Your task to perform on an android device: Search for rayovac triple a on ebay, select the first entry, add it to the cart, then select checkout. Image 0: 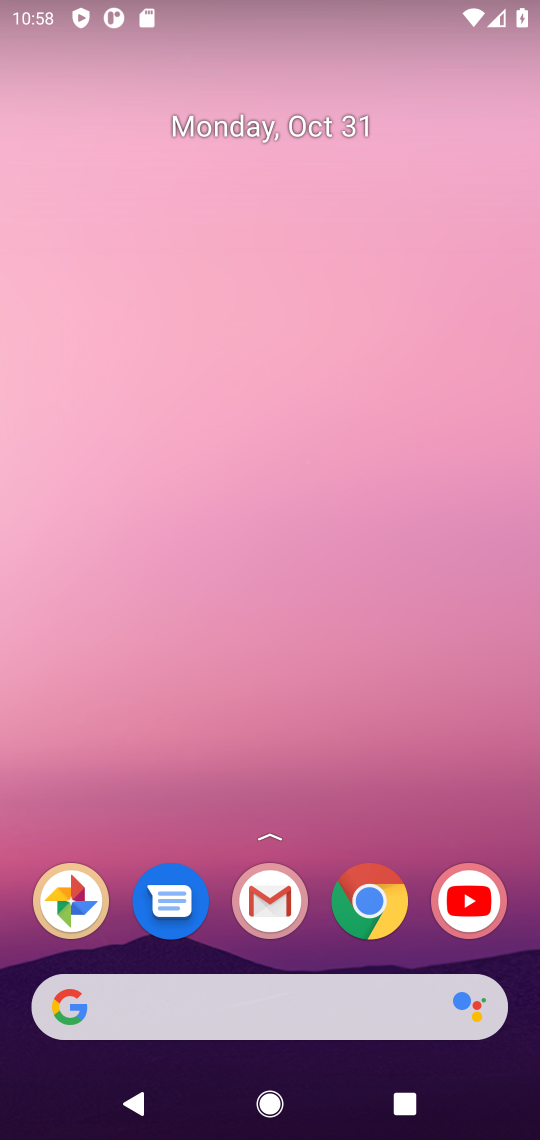
Step 0: drag from (260, 764) to (256, 193)
Your task to perform on an android device: Search for rayovac triple a on ebay, select the first entry, add it to the cart, then select checkout. Image 1: 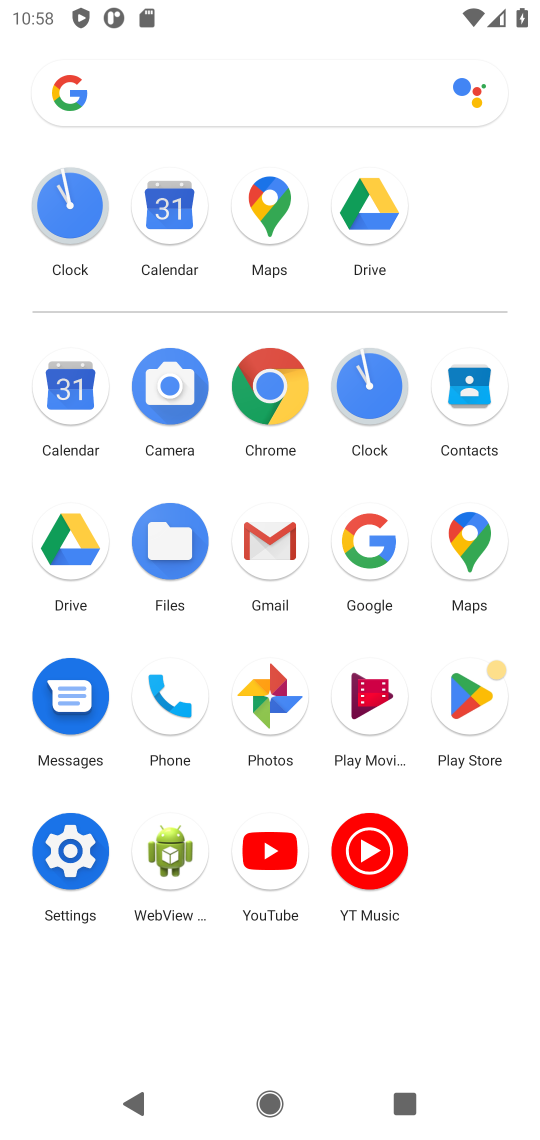
Step 1: click (376, 541)
Your task to perform on an android device: Search for rayovac triple a on ebay, select the first entry, add it to the cart, then select checkout. Image 2: 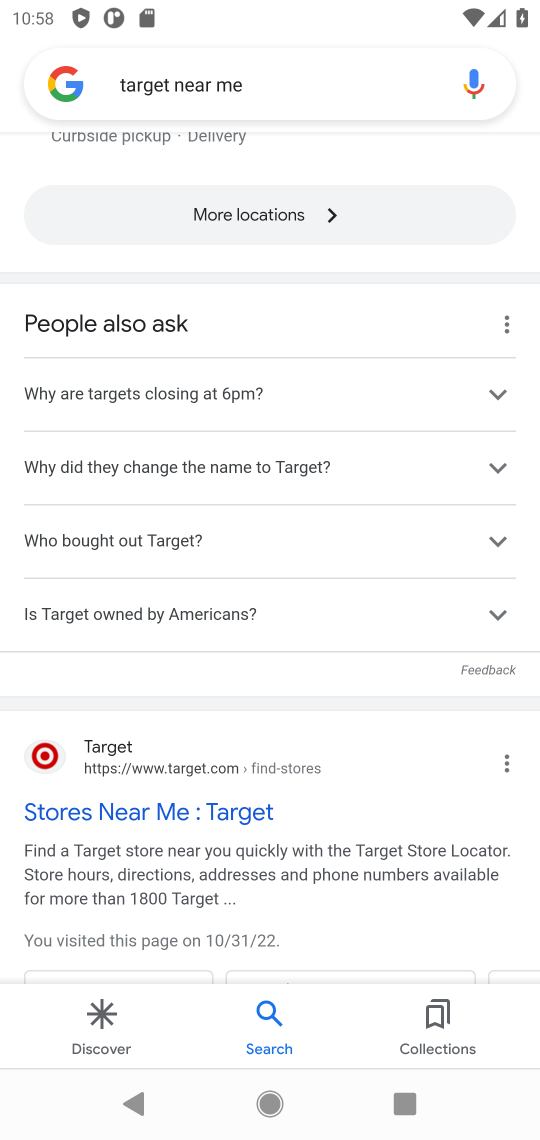
Step 2: click (233, 65)
Your task to perform on an android device: Search for rayovac triple a on ebay, select the first entry, add it to the cart, then select checkout. Image 3: 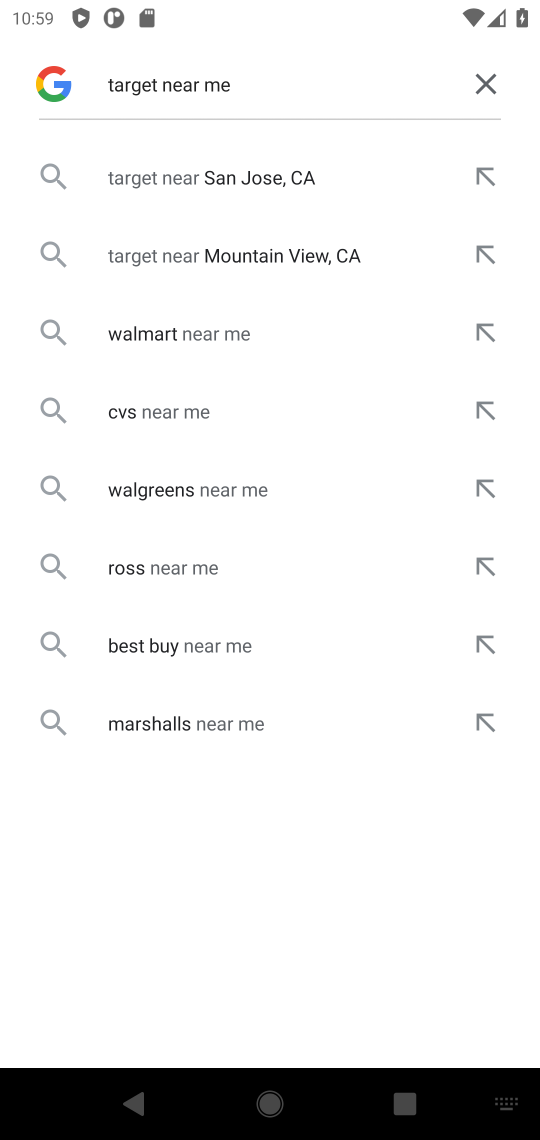
Step 3: click (497, 72)
Your task to perform on an android device: Search for rayovac triple a on ebay, select the first entry, add it to the cart, then select checkout. Image 4: 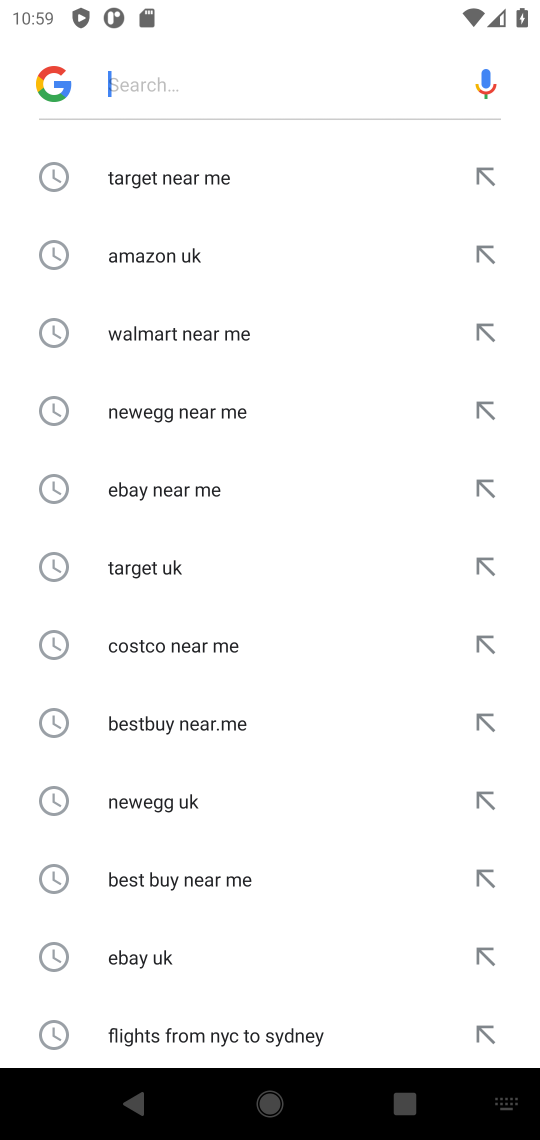
Step 4: click (234, 83)
Your task to perform on an android device: Search for rayovac triple a on ebay, select the first entry, add it to the cart, then select checkout. Image 5: 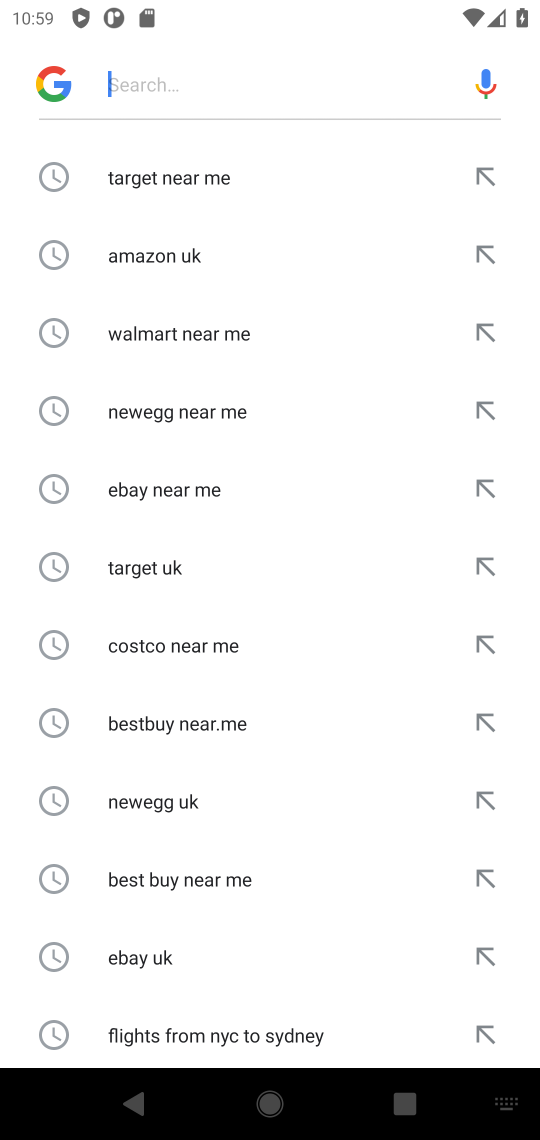
Step 5: type "ebay "
Your task to perform on an android device: Search for rayovac triple a on ebay, select the first entry, add it to the cart, then select checkout. Image 6: 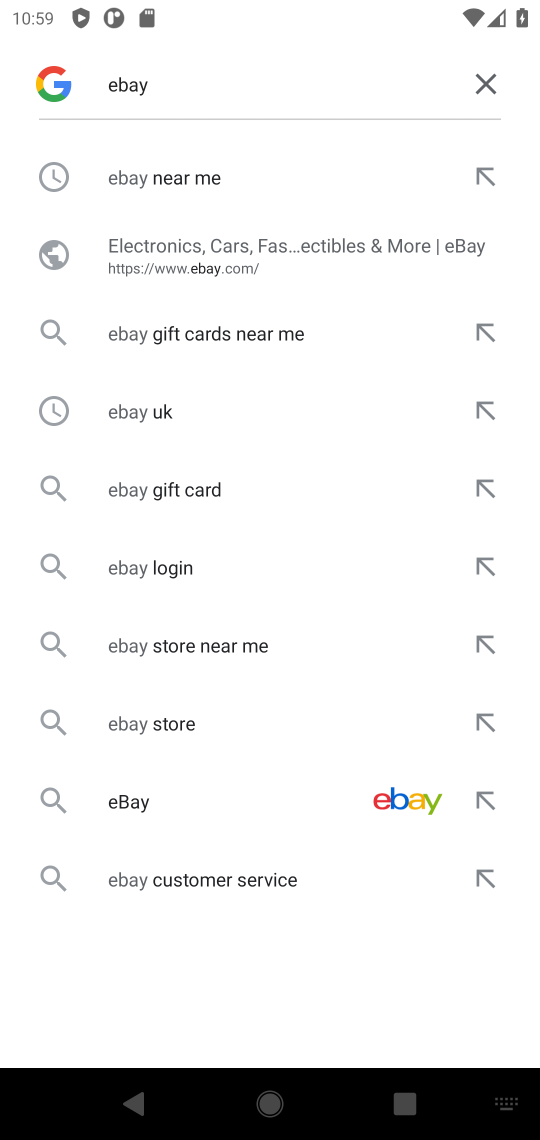
Step 6: click (209, 195)
Your task to perform on an android device: Search for rayovac triple a on ebay, select the first entry, add it to the cart, then select checkout. Image 7: 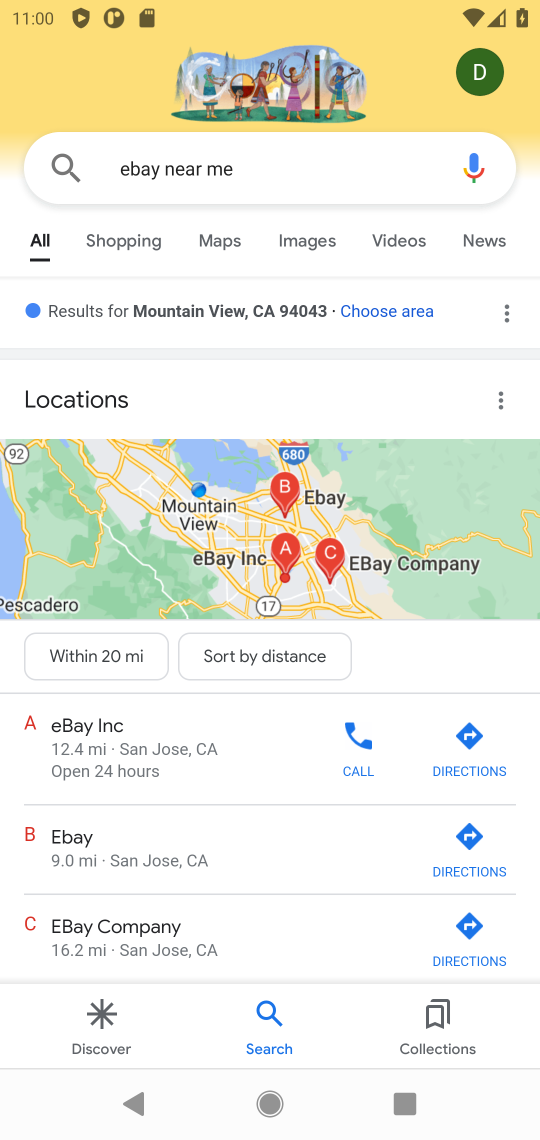
Step 7: drag from (187, 777) to (234, 245)
Your task to perform on an android device: Search for rayovac triple a on ebay, select the first entry, add it to the cart, then select checkout. Image 8: 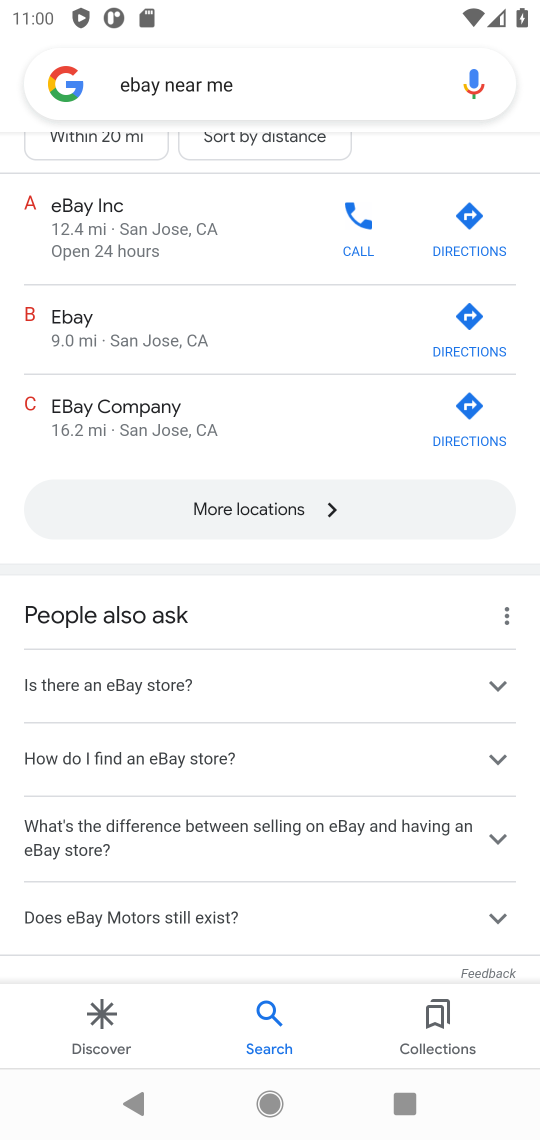
Step 8: drag from (234, 359) to (251, 134)
Your task to perform on an android device: Search for rayovac triple a on ebay, select the first entry, add it to the cart, then select checkout. Image 9: 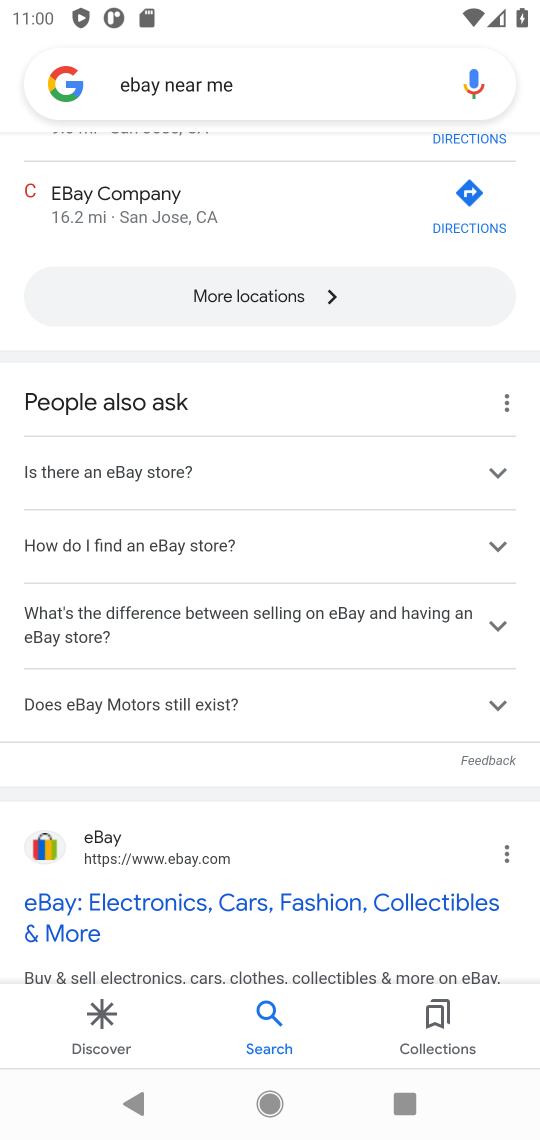
Step 9: drag from (234, 613) to (241, 364)
Your task to perform on an android device: Search for rayovac triple a on ebay, select the first entry, add it to the cart, then select checkout. Image 10: 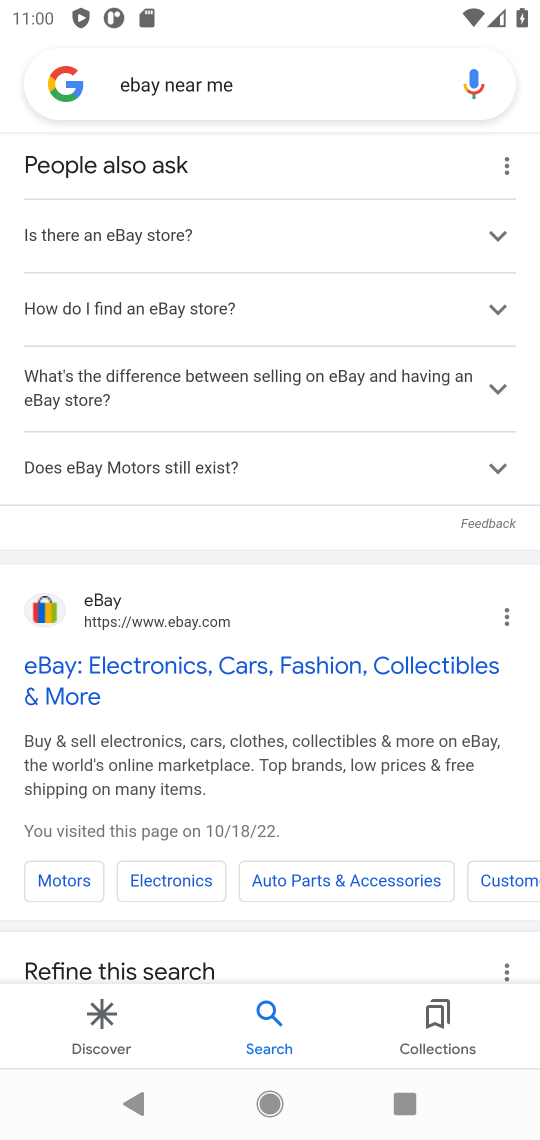
Step 10: drag from (269, 915) to (286, 320)
Your task to perform on an android device: Search for rayovac triple a on ebay, select the first entry, add it to the cart, then select checkout. Image 11: 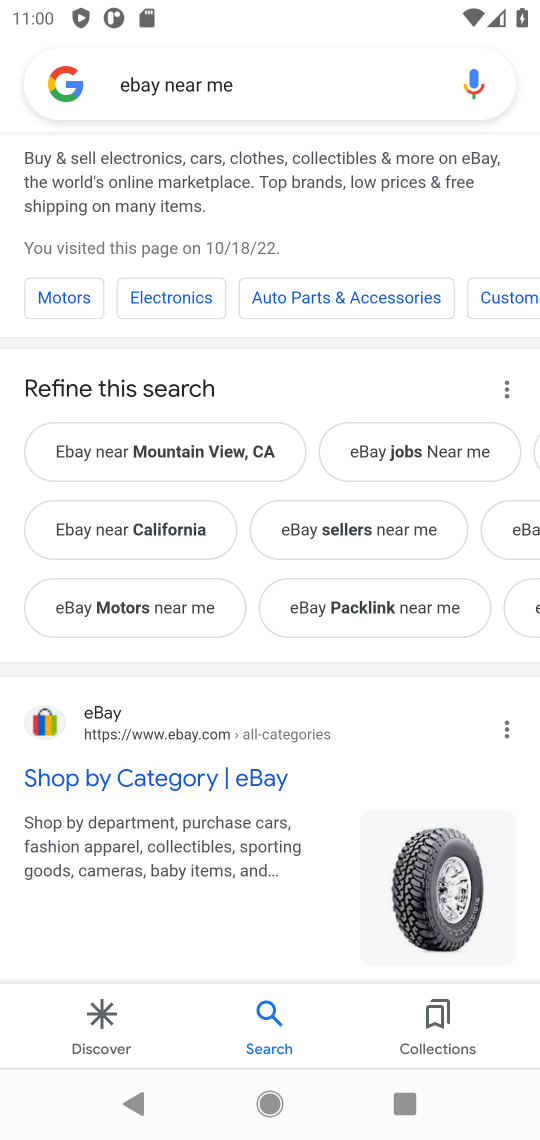
Step 11: click (49, 725)
Your task to perform on an android device: Search for rayovac triple a on ebay, select the first entry, add it to the cart, then select checkout. Image 12: 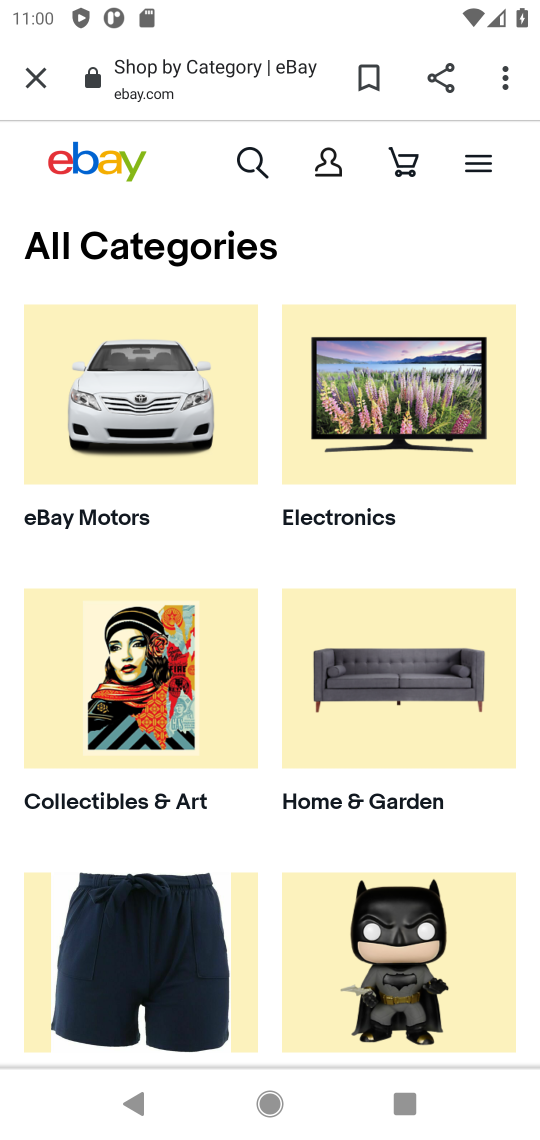
Step 12: click (248, 159)
Your task to perform on an android device: Search for rayovac triple a on ebay, select the first entry, add it to the cart, then select checkout. Image 13: 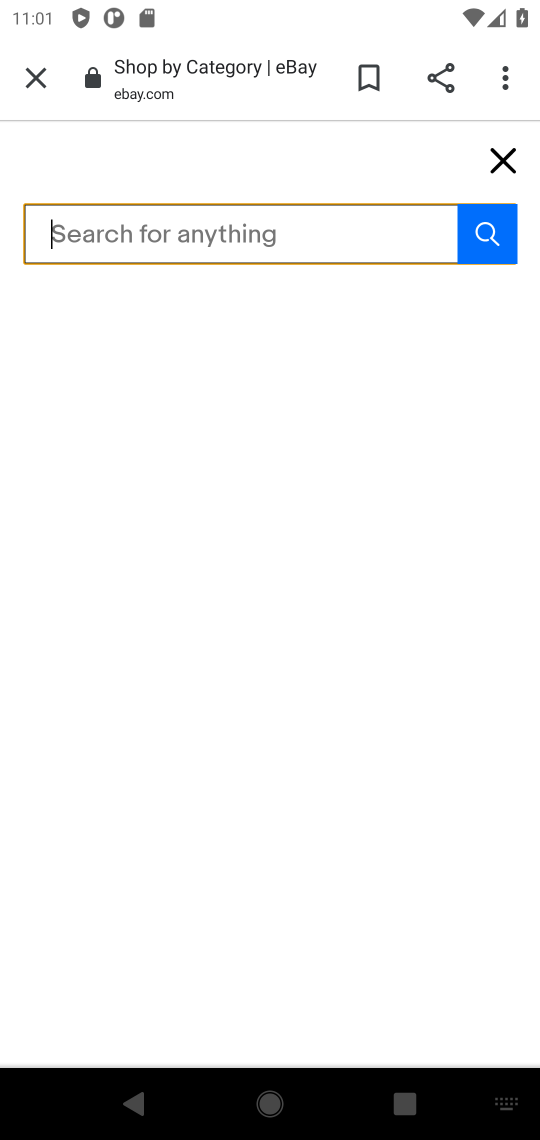
Step 13: click (266, 210)
Your task to perform on an android device: Search for rayovac triple a on ebay, select the first entry, add it to the cart, then select checkout. Image 14: 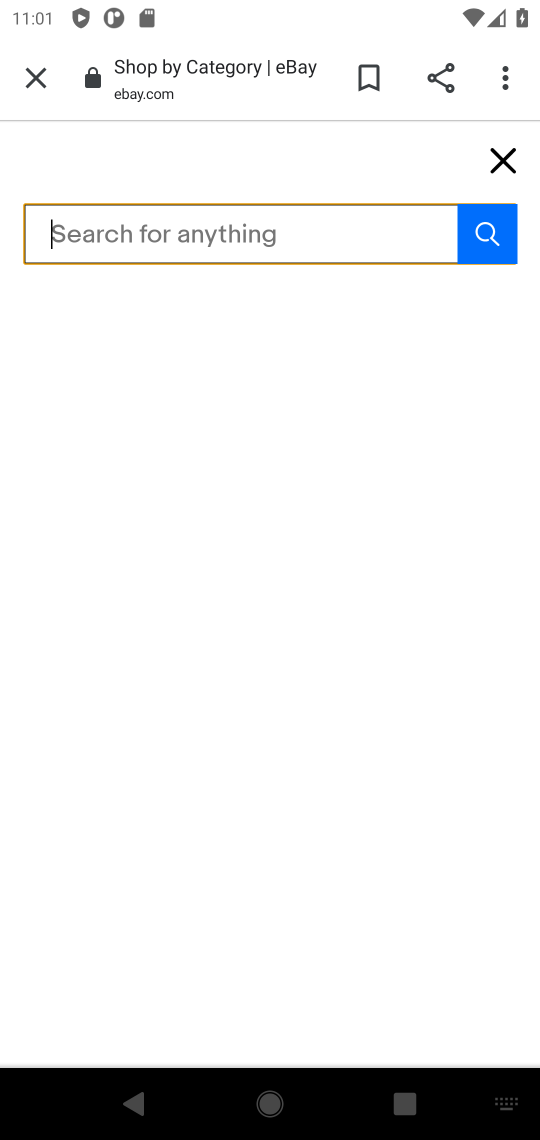
Step 14: type " rayovac tripl "
Your task to perform on an android device: Search for rayovac triple a on ebay, select the first entry, add it to the cart, then select checkout. Image 15: 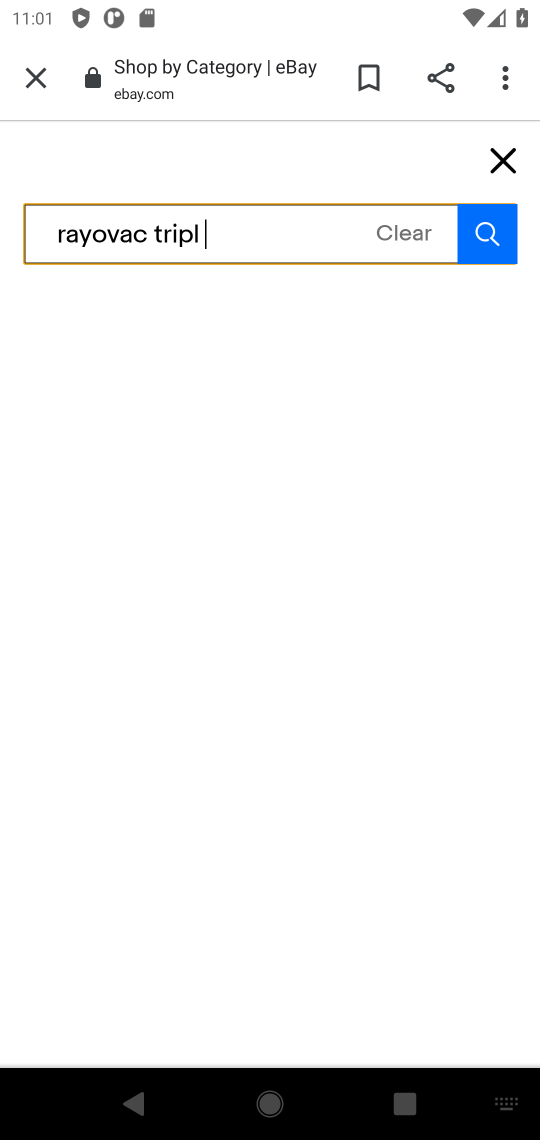
Step 15: click (490, 236)
Your task to perform on an android device: Search for rayovac triple a on ebay, select the first entry, add it to the cart, then select checkout. Image 16: 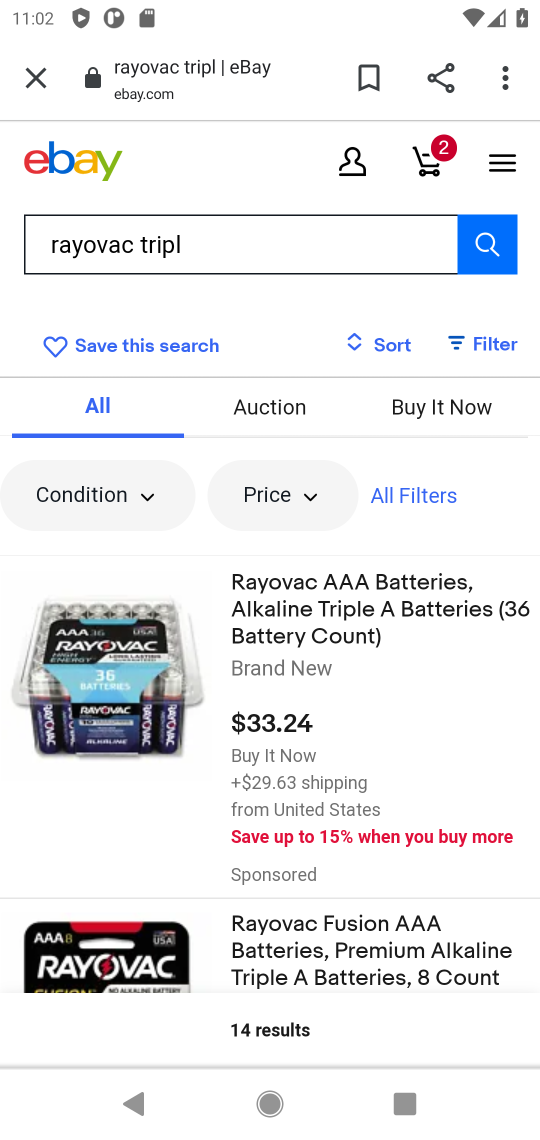
Step 16: click (261, 580)
Your task to perform on an android device: Search for rayovac triple a on ebay, select the first entry, add it to the cart, then select checkout. Image 17: 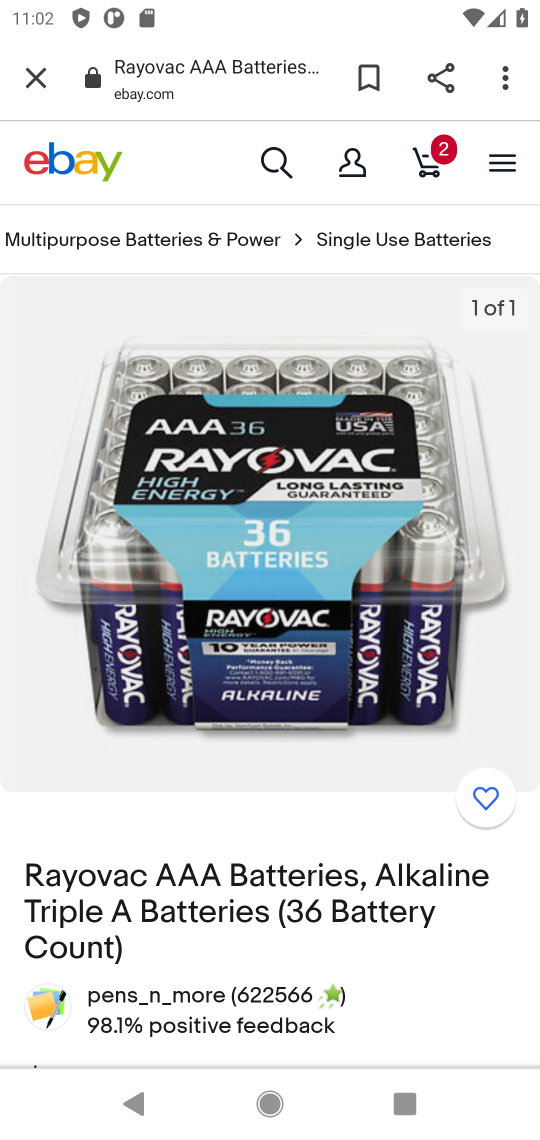
Step 17: drag from (297, 941) to (314, 310)
Your task to perform on an android device: Search for rayovac triple a on ebay, select the first entry, add it to the cart, then select checkout. Image 18: 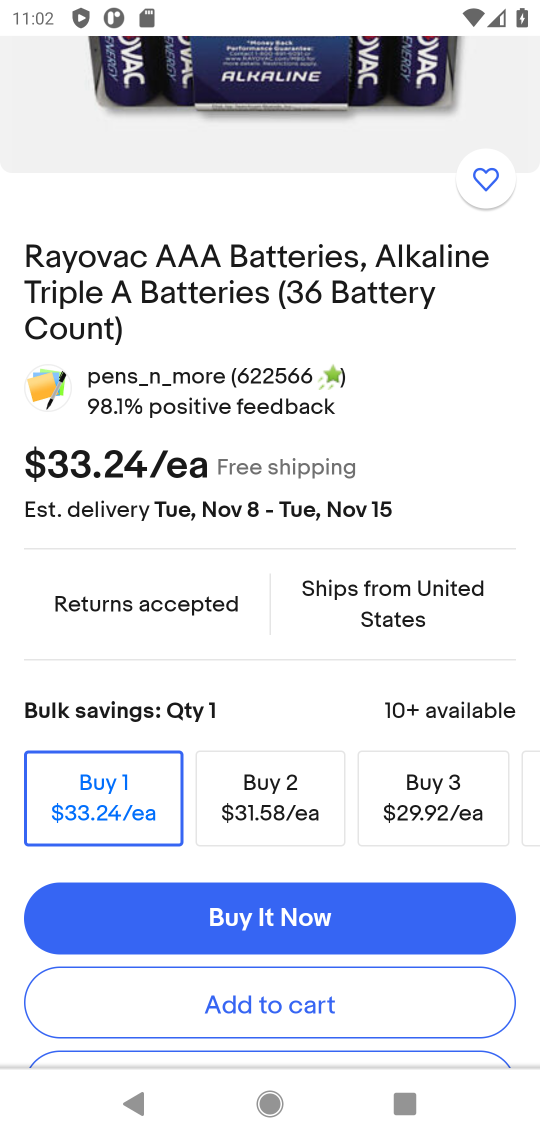
Step 18: drag from (212, 749) to (240, 276)
Your task to perform on an android device: Search for rayovac triple a on ebay, select the first entry, add it to the cart, then select checkout. Image 19: 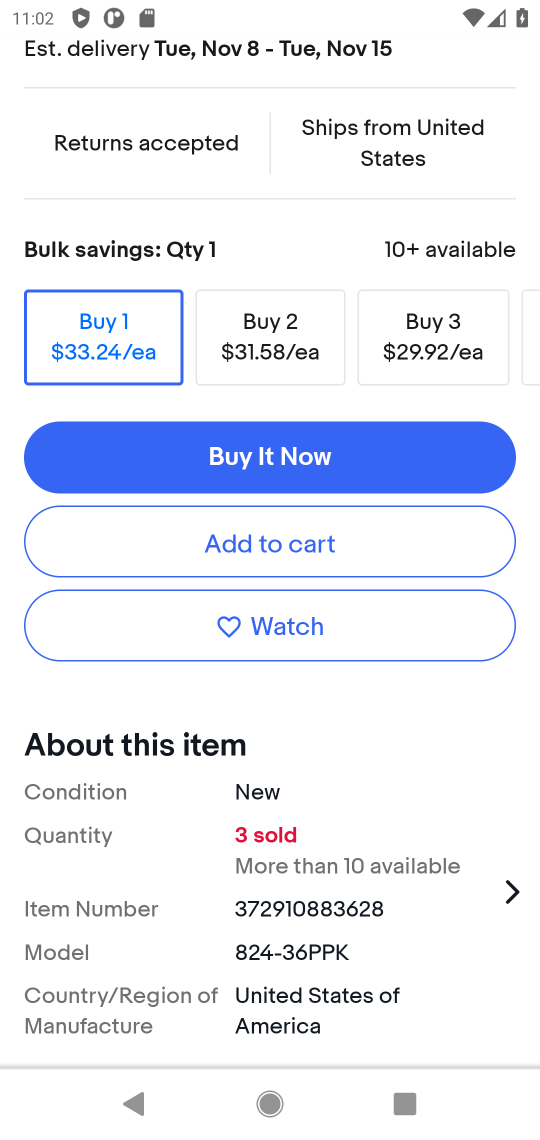
Step 19: click (266, 533)
Your task to perform on an android device: Search for rayovac triple a on ebay, select the first entry, add it to the cart, then select checkout. Image 20: 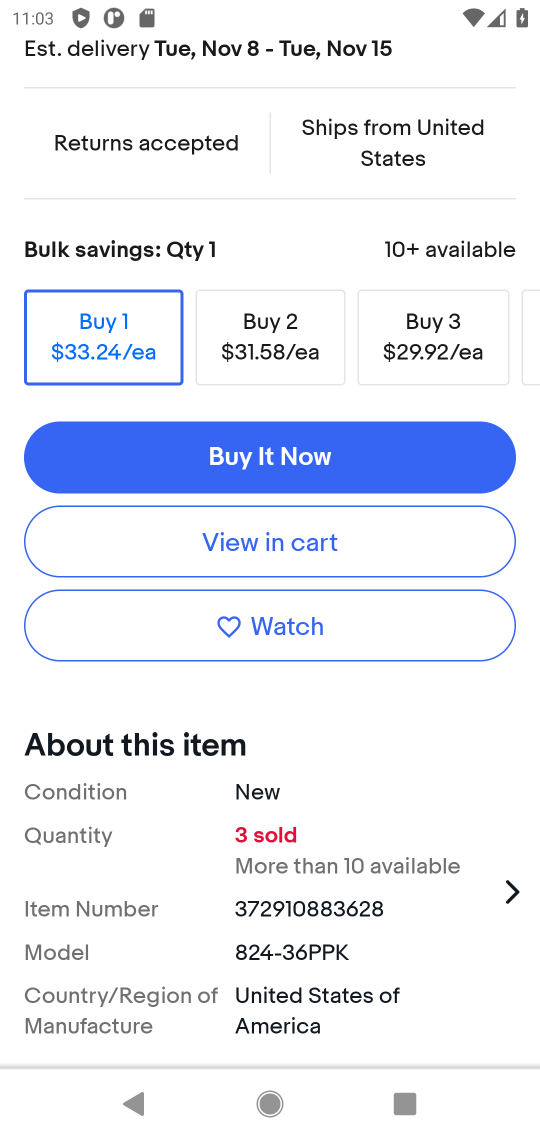
Step 20: click (263, 536)
Your task to perform on an android device: Search for rayovac triple a on ebay, select the first entry, add it to the cart, then select checkout. Image 21: 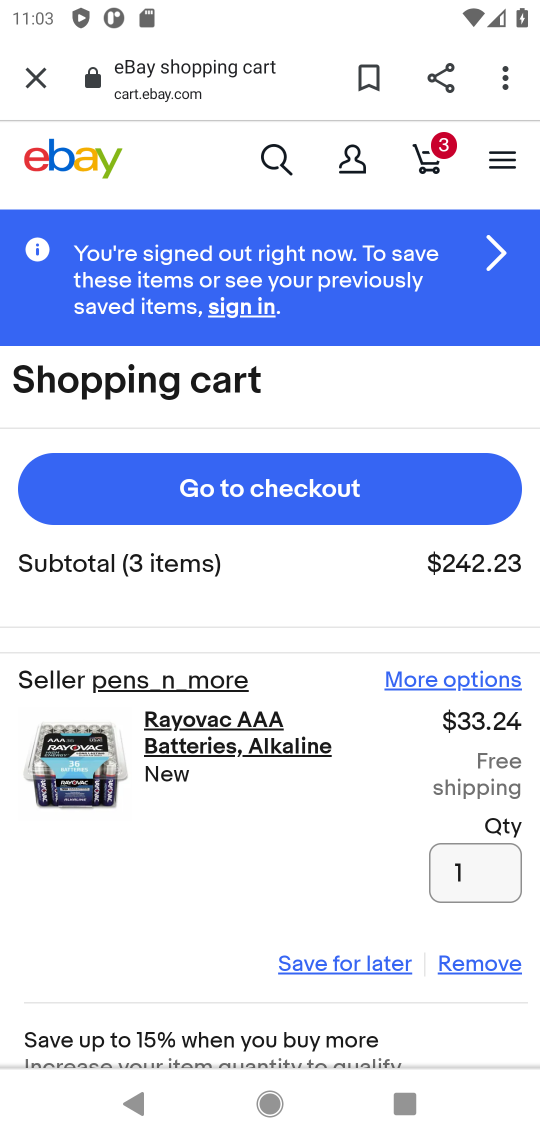
Step 21: task complete